Your task to perform on an android device: delete a single message in the gmail app Image 0: 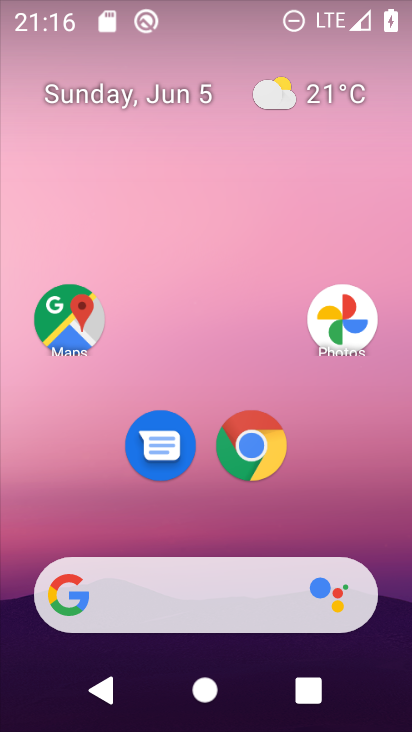
Step 0: drag from (337, 501) to (219, 49)
Your task to perform on an android device: delete a single message in the gmail app Image 1: 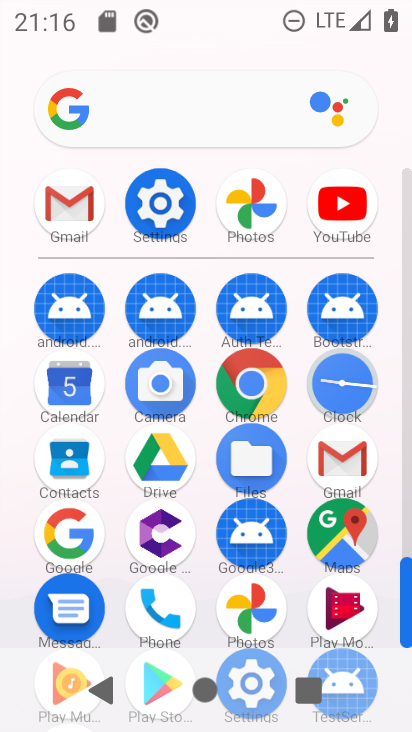
Step 1: click (78, 215)
Your task to perform on an android device: delete a single message in the gmail app Image 2: 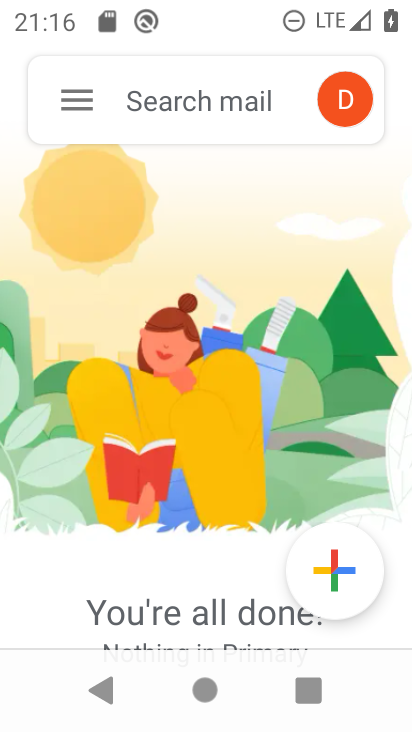
Step 2: click (82, 104)
Your task to perform on an android device: delete a single message in the gmail app Image 3: 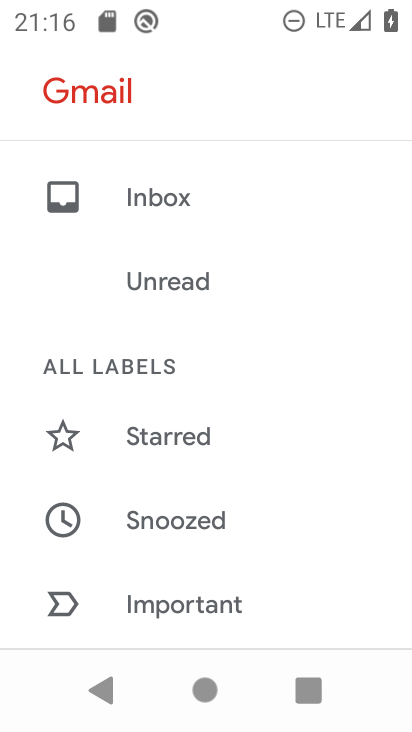
Step 3: drag from (275, 715) to (301, 166)
Your task to perform on an android device: delete a single message in the gmail app Image 4: 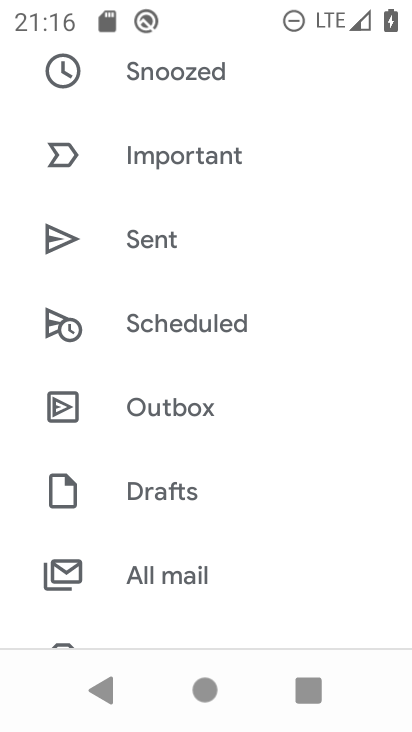
Step 4: click (140, 550)
Your task to perform on an android device: delete a single message in the gmail app Image 5: 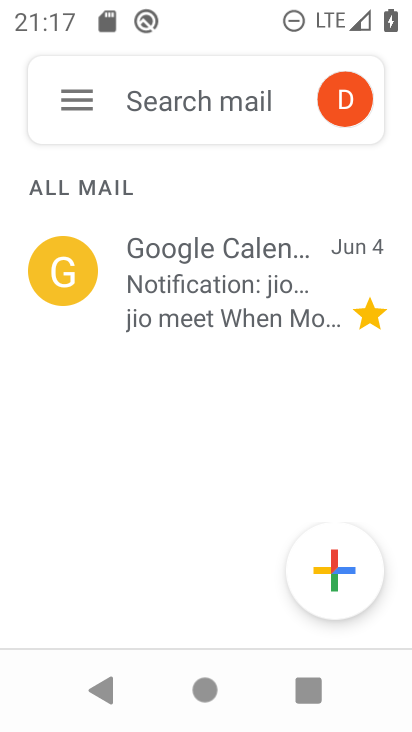
Step 5: click (330, 312)
Your task to perform on an android device: delete a single message in the gmail app Image 6: 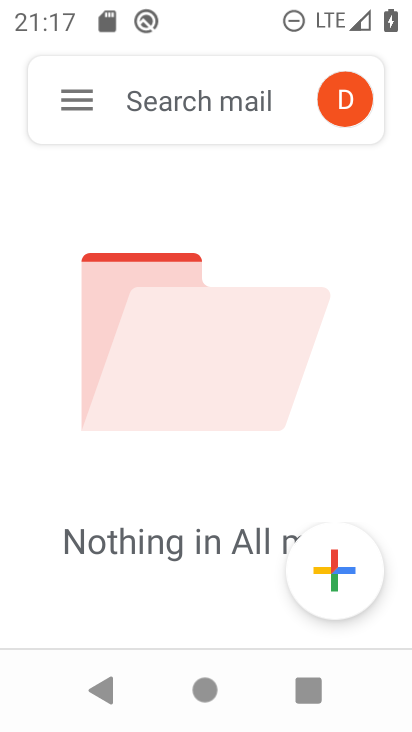
Step 6: task complete